Your task to perform on an android device: Check the news Image 0: 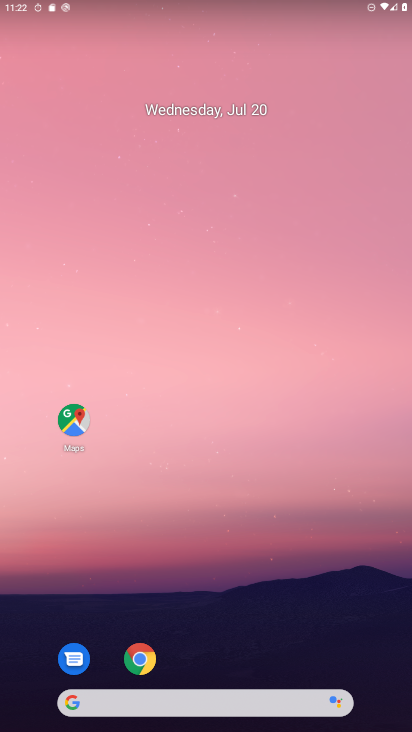
Step 0: drag from (301, 651) to (137, 40)
Your task to perform on an android device: Check the news Image 1: 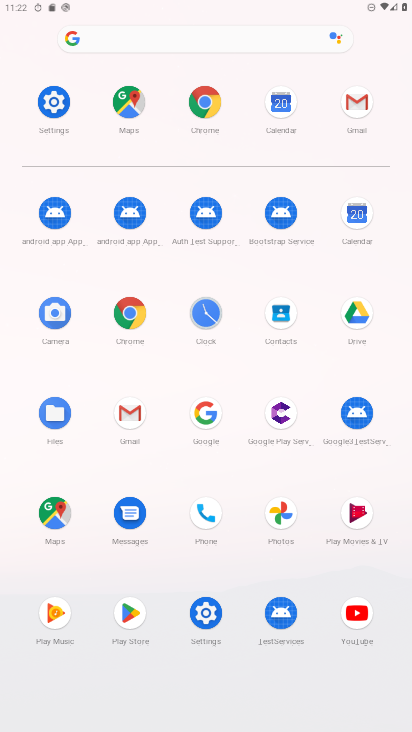
Step 1: click (210, 95)
Your task to perform on an android device: Check the news Image 2: 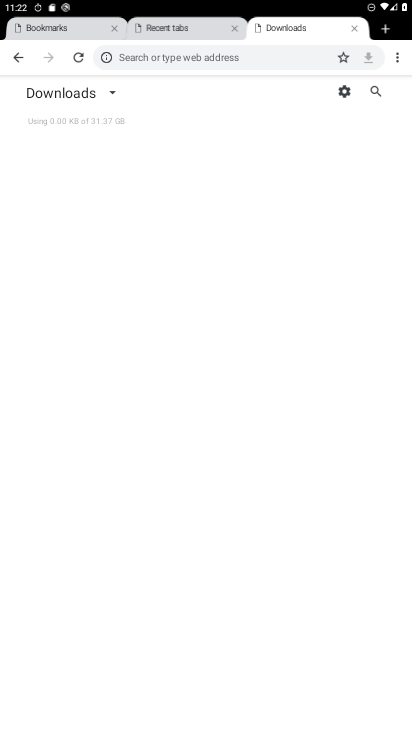
Step 2: click (260, 53)
Your task to perform on an android device: Check the news Image 3: 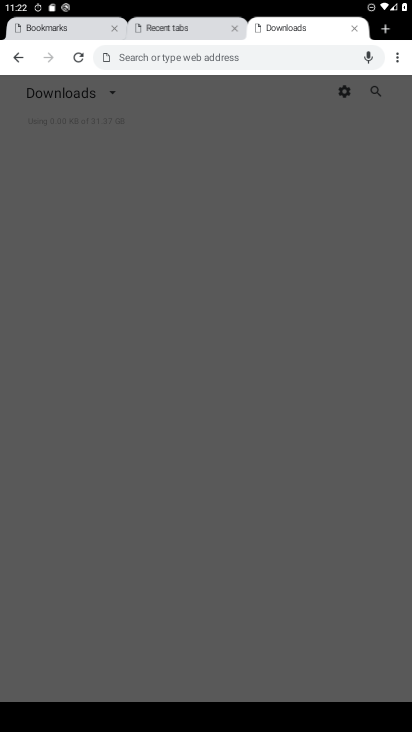
Step 3: type "news"
Your task to perform on an android device: Check the news Image 4: 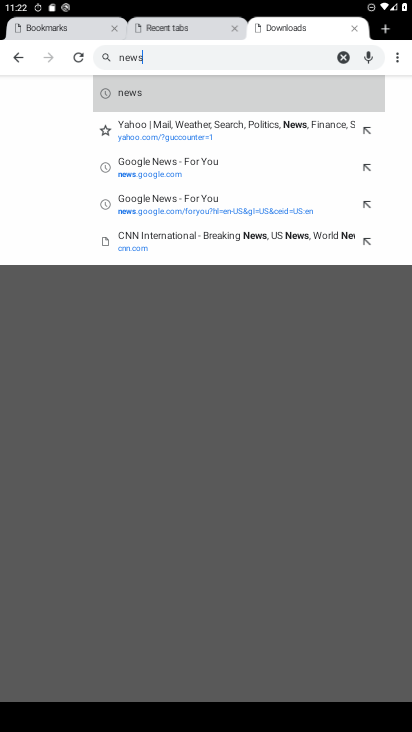
Step 4: click (114, 96)
Your task to perform on an android device: Check the news Image 5: 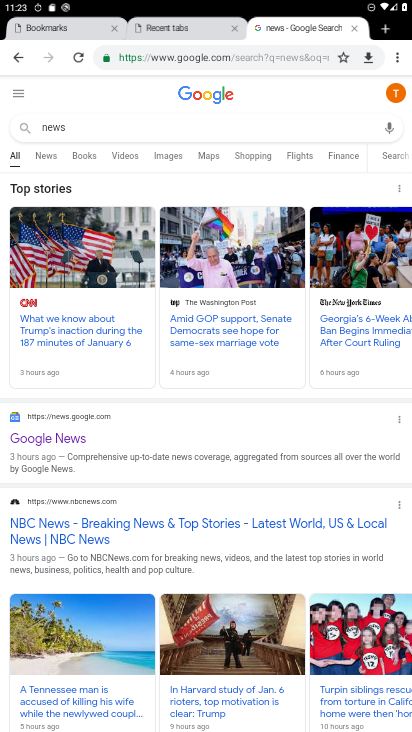
Step 5: click (53, 431)
Your task to perform on an android device: Check the news Image 6: 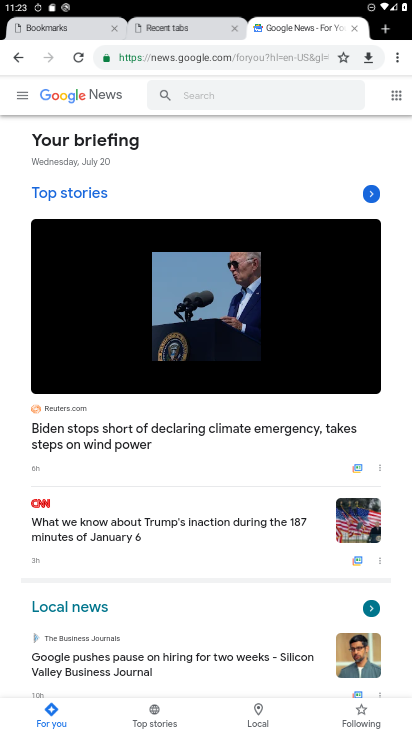
Step 6: task complete